Your task to perform on an android device: change alarm snooze length Image 0: 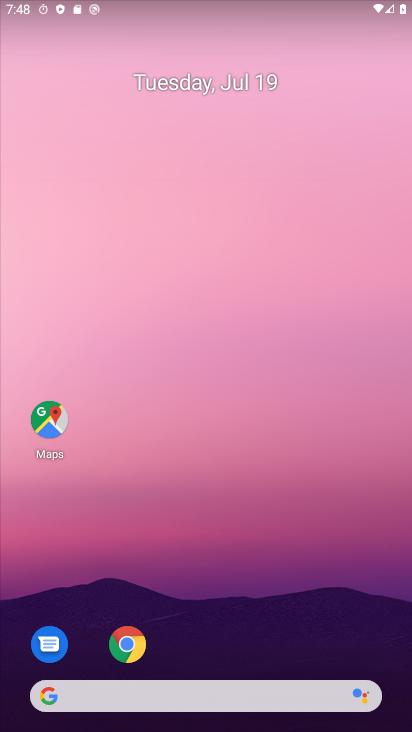
Step 0: drag from (30, 665) to (293, 50)
Your task to perform on an android device: change alarm snooze length Image 1: 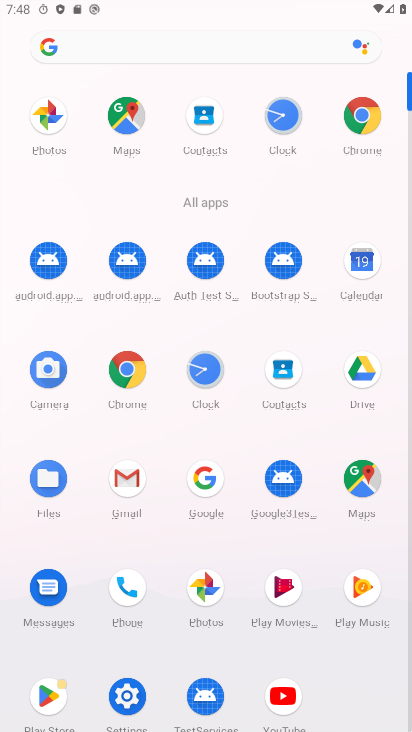
Step 1: click (201, 376)
Your task to perform on an android device: change alarm snooze length Image 2: 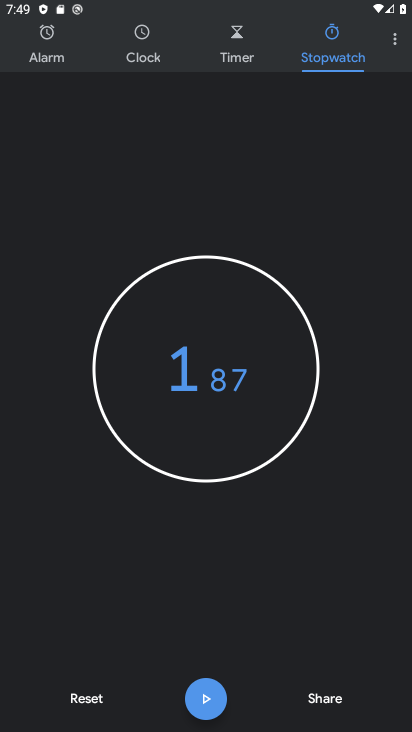
Step 2: click (42, 54)
Your task to perform on an android device: change alarm snooze length Image 3: 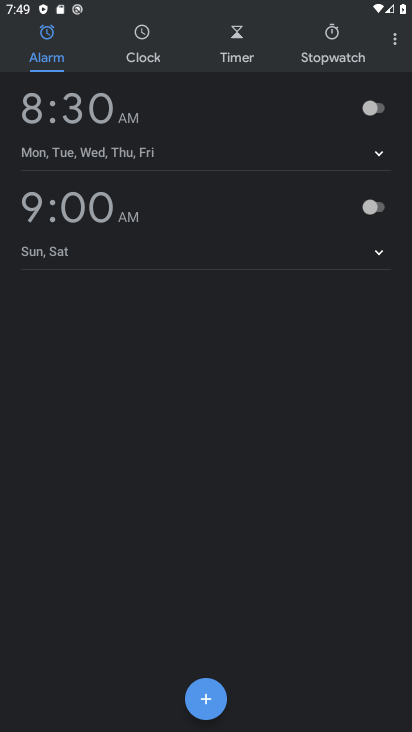
Step 3: click (392, 39)
Your task to perform on an android device: change alarm snooze length Image 4: 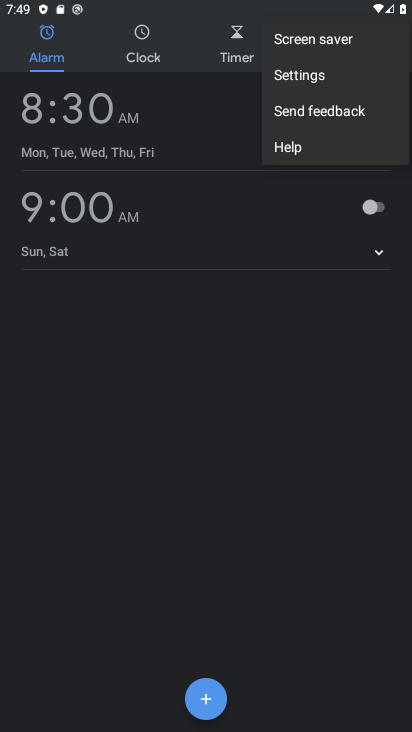
Step 4: click (299, 75)
Your task to perform on an android device: change alarm snooze length Image 5: 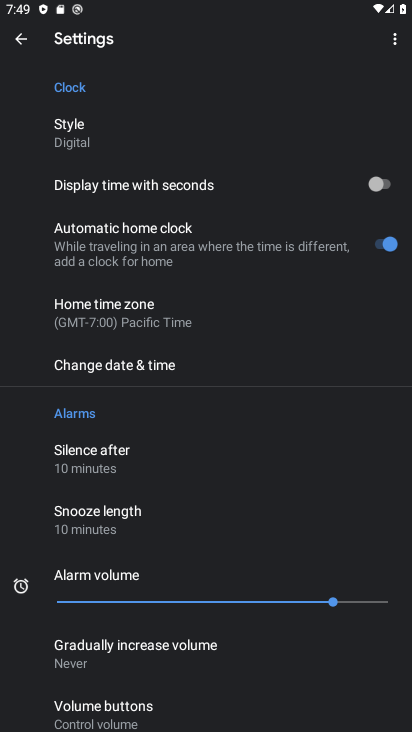
Step 5: click (91, 527)
Your task to perform on an android device: change alarm snooze length Image 6: 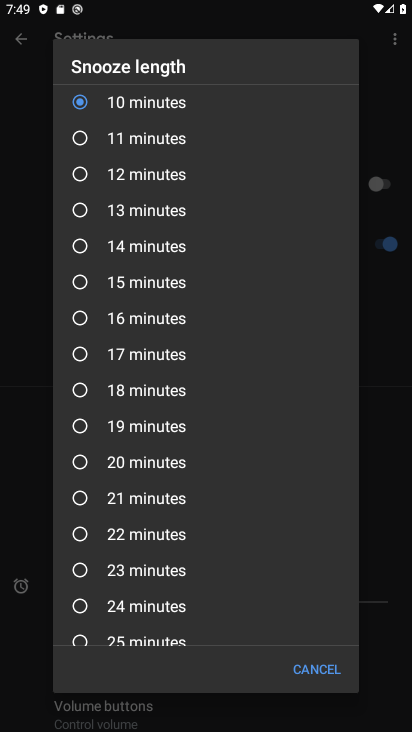
Step 6: click (80, 287)
Your task to perform on an android device: change alarm snooze length Image 7: 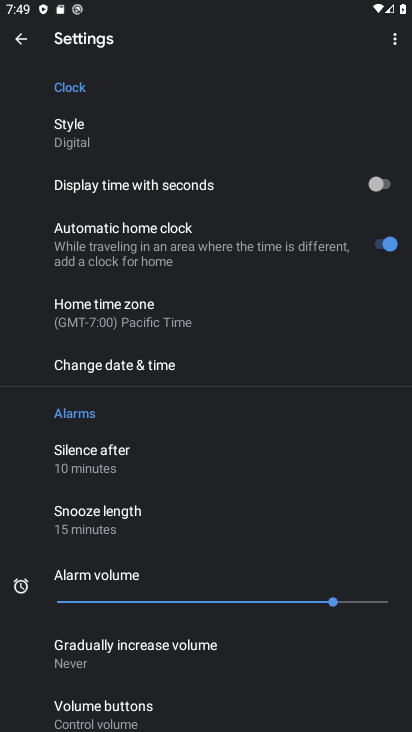
Step 7: task complete